Your task to perform on an android device: add a contact in the contacts app Image 0: 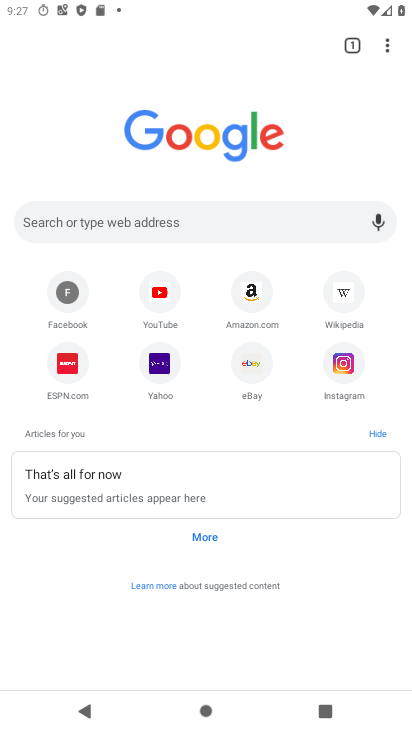
Step 0: press home button
Your task to perform on an android device: add a contact in the contacts app Image 1: 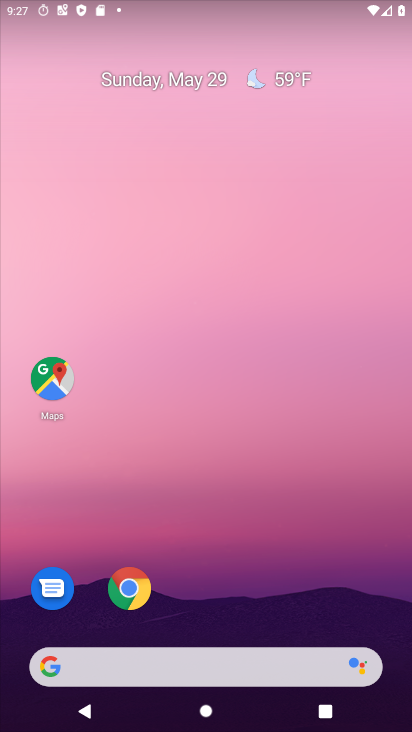
Step 1: drag from (199, 606) to (218, 13)
Your task to perform on an android device: add a contact in the contacts app Image 2: 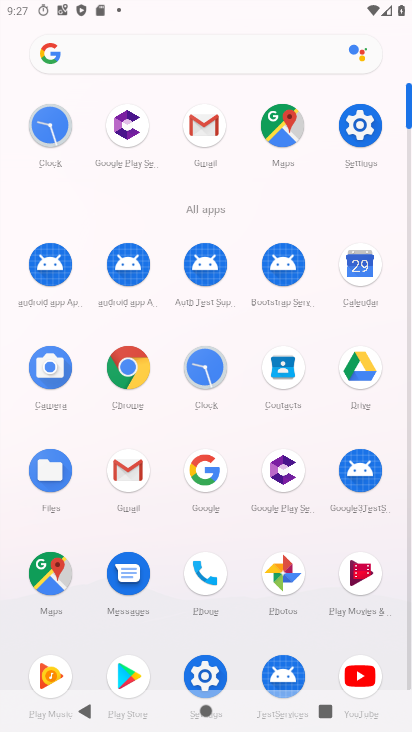
Step 2: click (286, 374)
Your task to perform on an android device: add a contact in the contacts app Image 3: 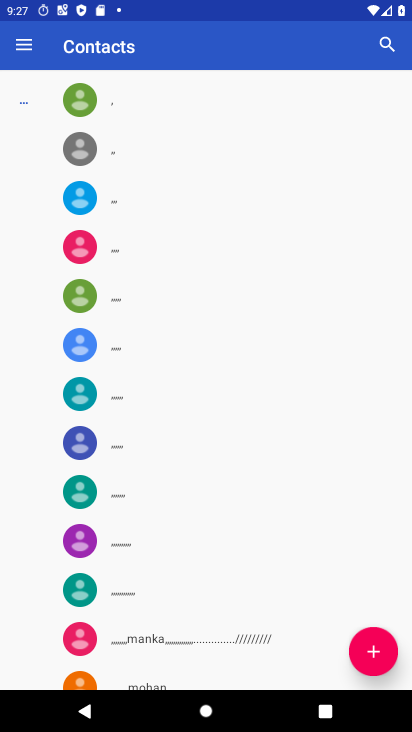
Step 3: click (373, 659)
Your task to perform on an android device: add a contact in the contacts app Image 4: 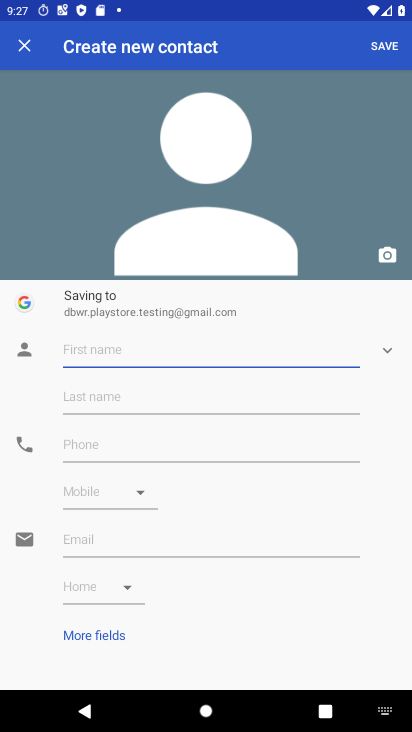
Step 4: type ""
Your task to perform on an android device: add a contact in the contacts app Image 5: 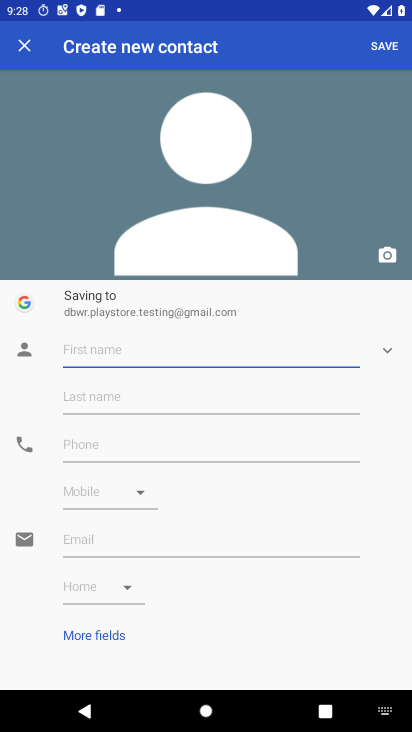
Step 5: type "@!#"
Your task to perform on an android device: add a contact in the contacts app Image 6: 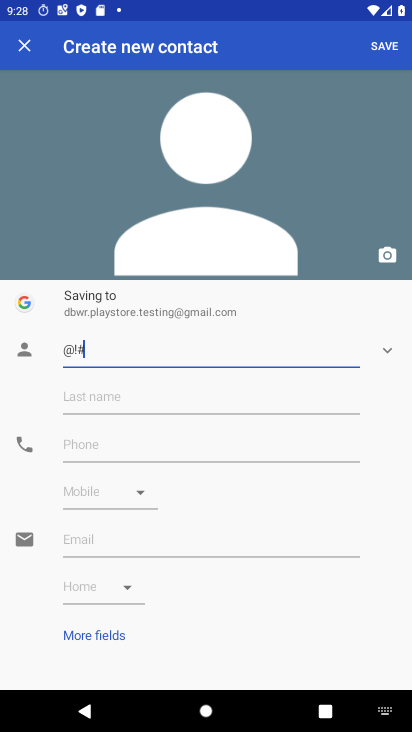
Step 6: type ""
Your task to perform on an android device: add a contact in the contacts app Image 7: 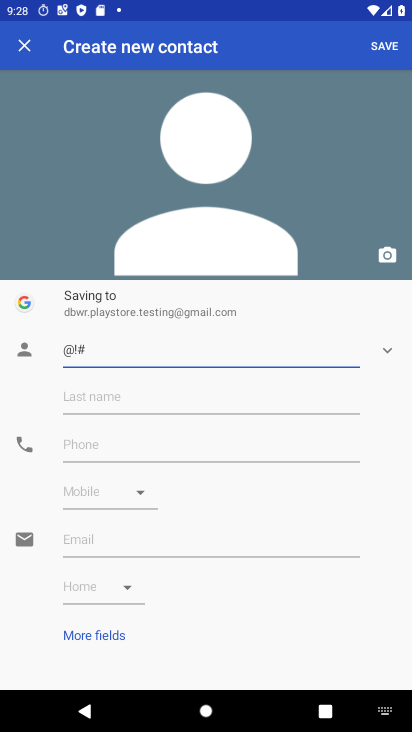
Step 7: click (375, 37)
Your task to perform on an android device: add a contact in the contacts app Image 8: 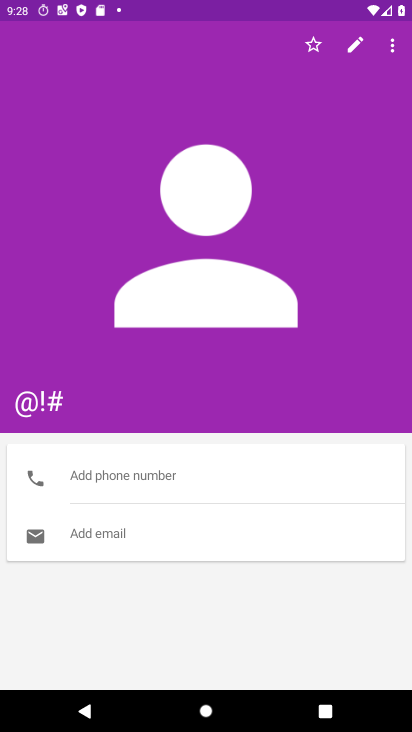
Step 8: task complete